Your task to perform on an android device: open wifi settings Image 0: 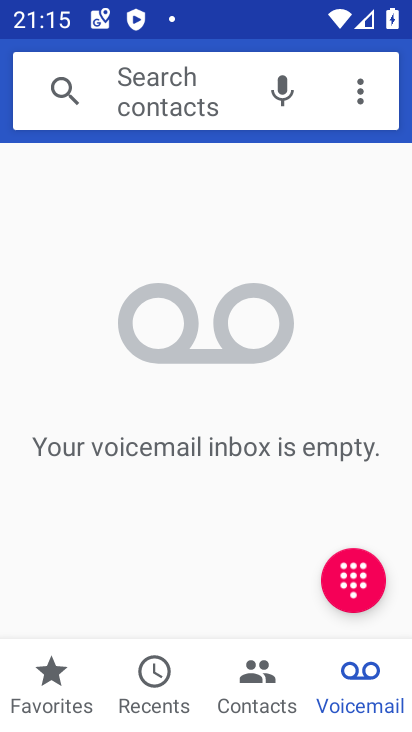
Step 0: drag from (203, 21) to (207, 617)
Your task to perform on an android device: open wifi settings Image 1: 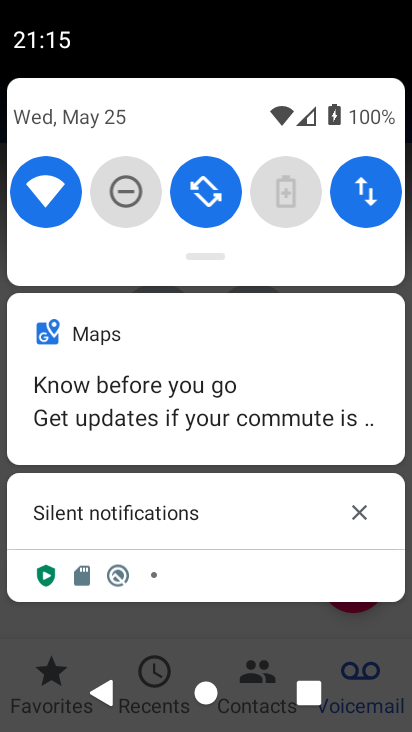
Step 1: click (46, 199)
Your task to perform on an android device: open wifi settings Image 2: 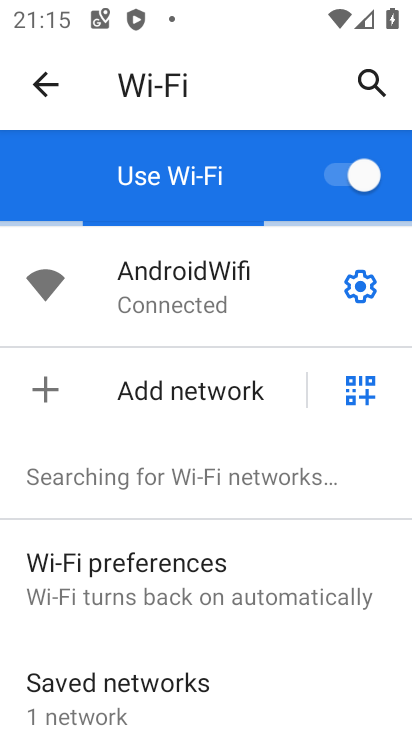
Step 2: task complete